Your task to perform on an android device: install app "ColorNote Notepad Notes" Image 0: 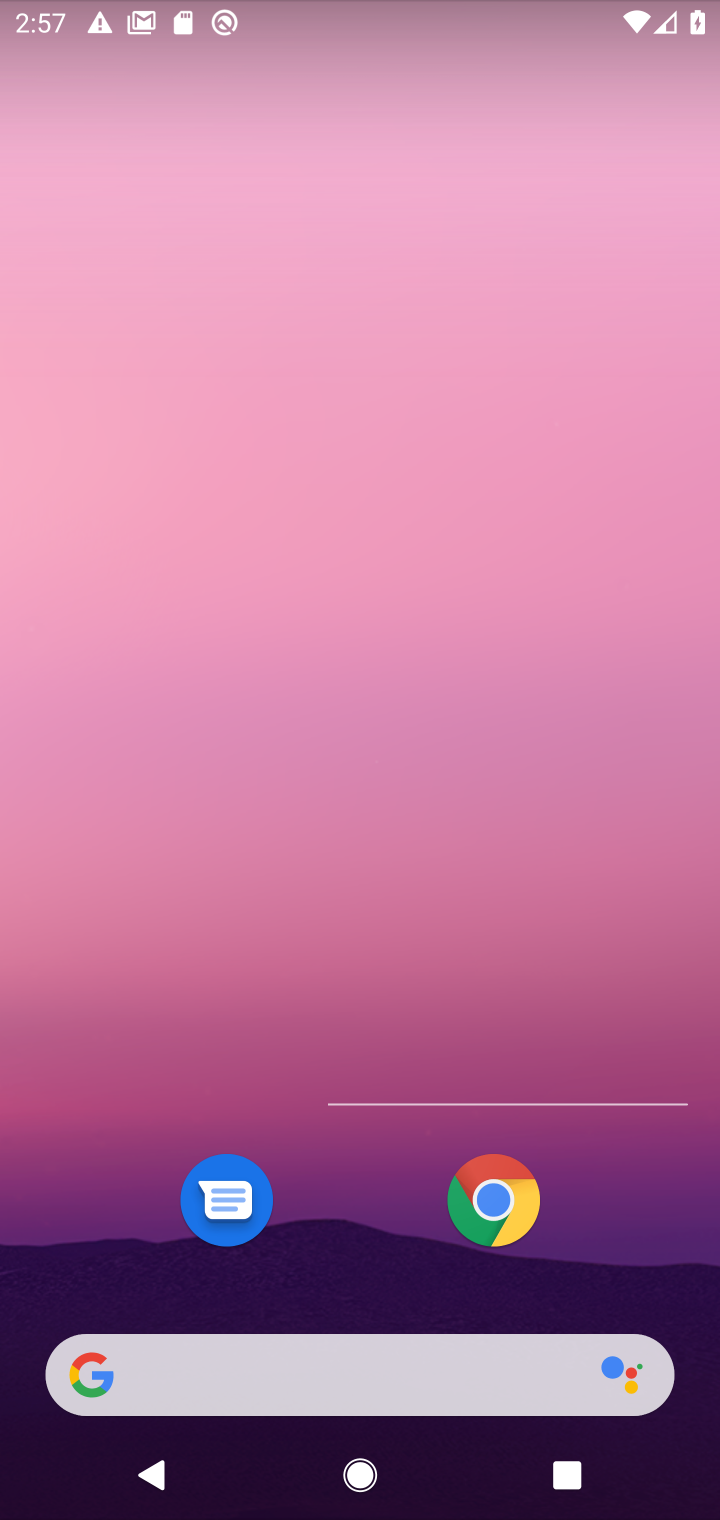
Step 0: drag from (369, 1280) to (443, 79)
Your task to perform on an android device: install app "ColorNote Notepad Notes" Image 1: 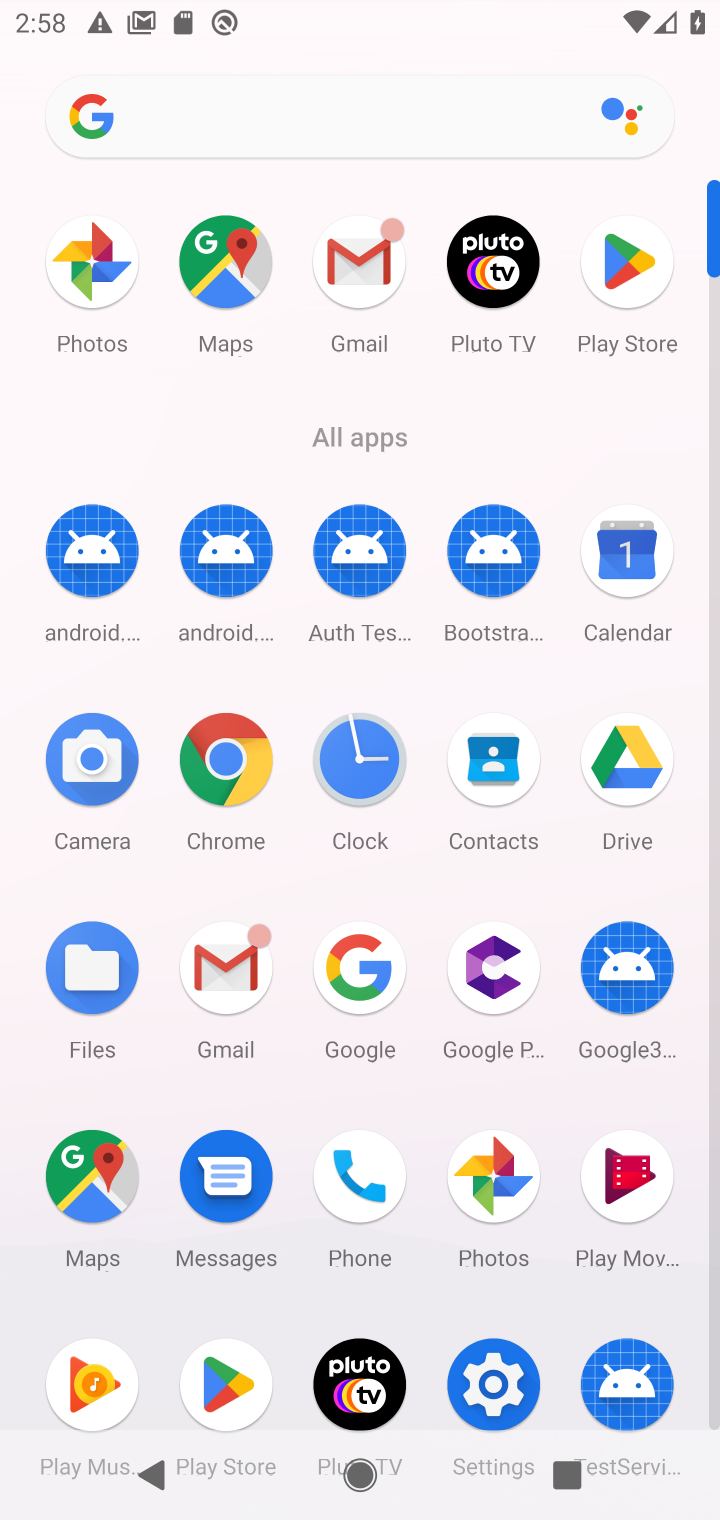
Step 1: click (224, 1396)
Your task to perform on an android device: install app "ColorNote Notepad Notes" Image 2: 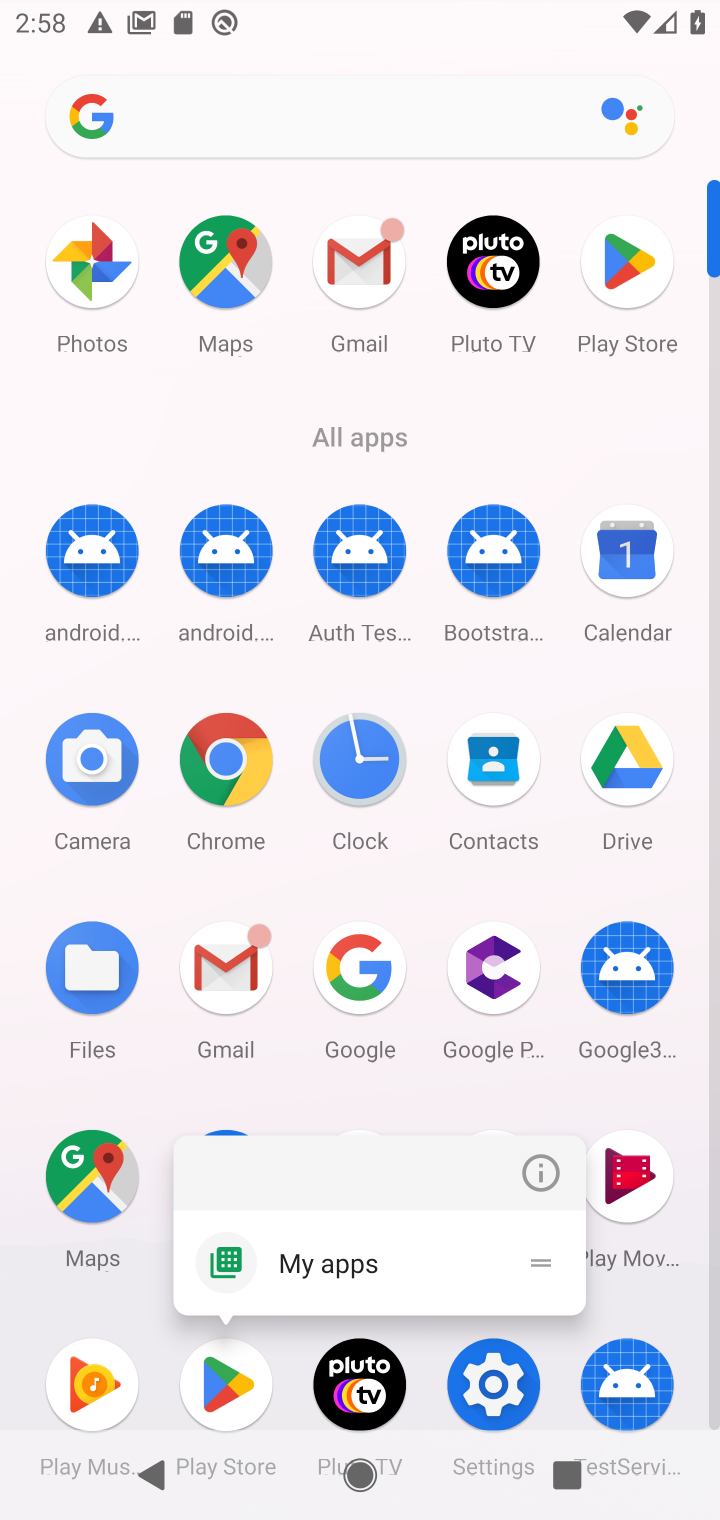
Step 2: click (231, 1376)
Your task to perform on an android device: install app "ColorNote Notepad Notes" Image 3: 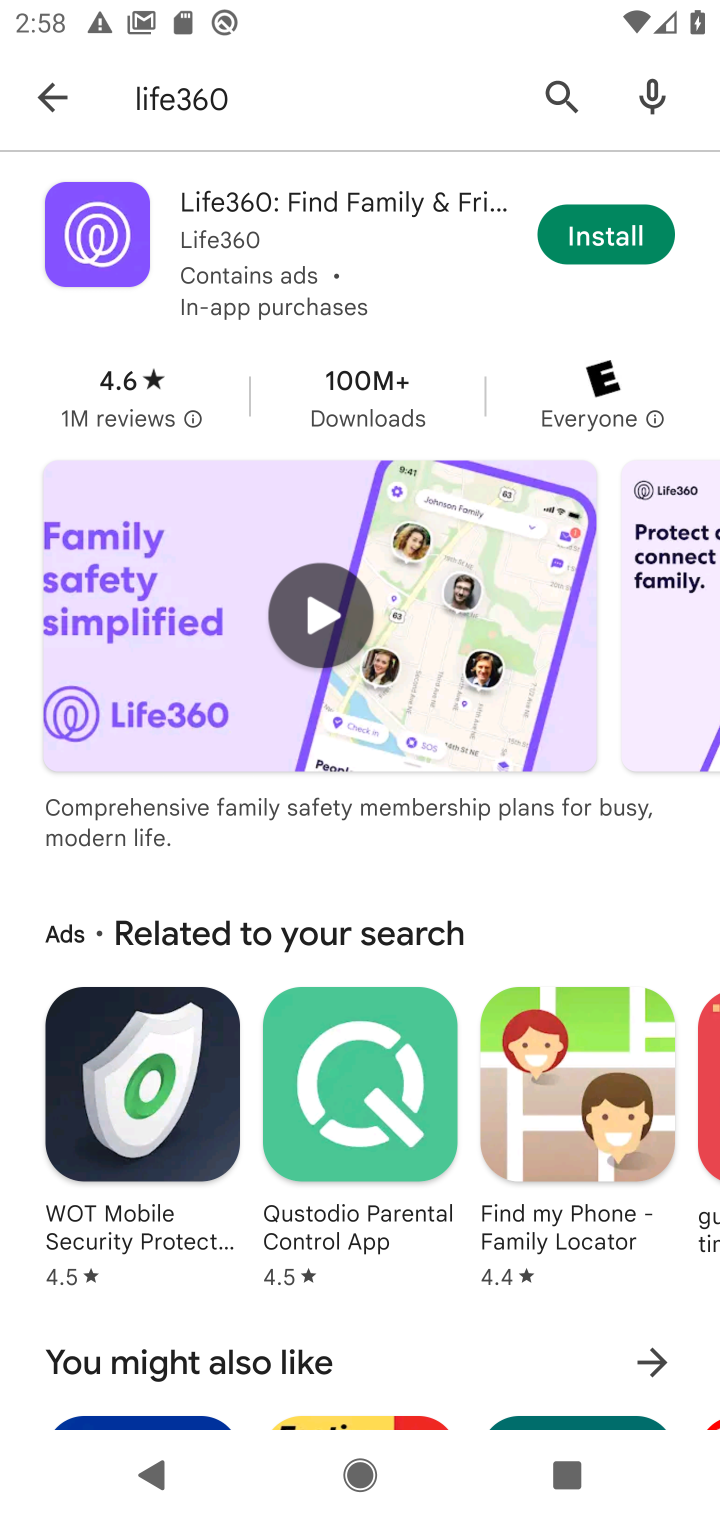
Step 3: click (184, 110)
Your task to perform on an android device: install app "ColorNote Notepad Notes" Image 4: 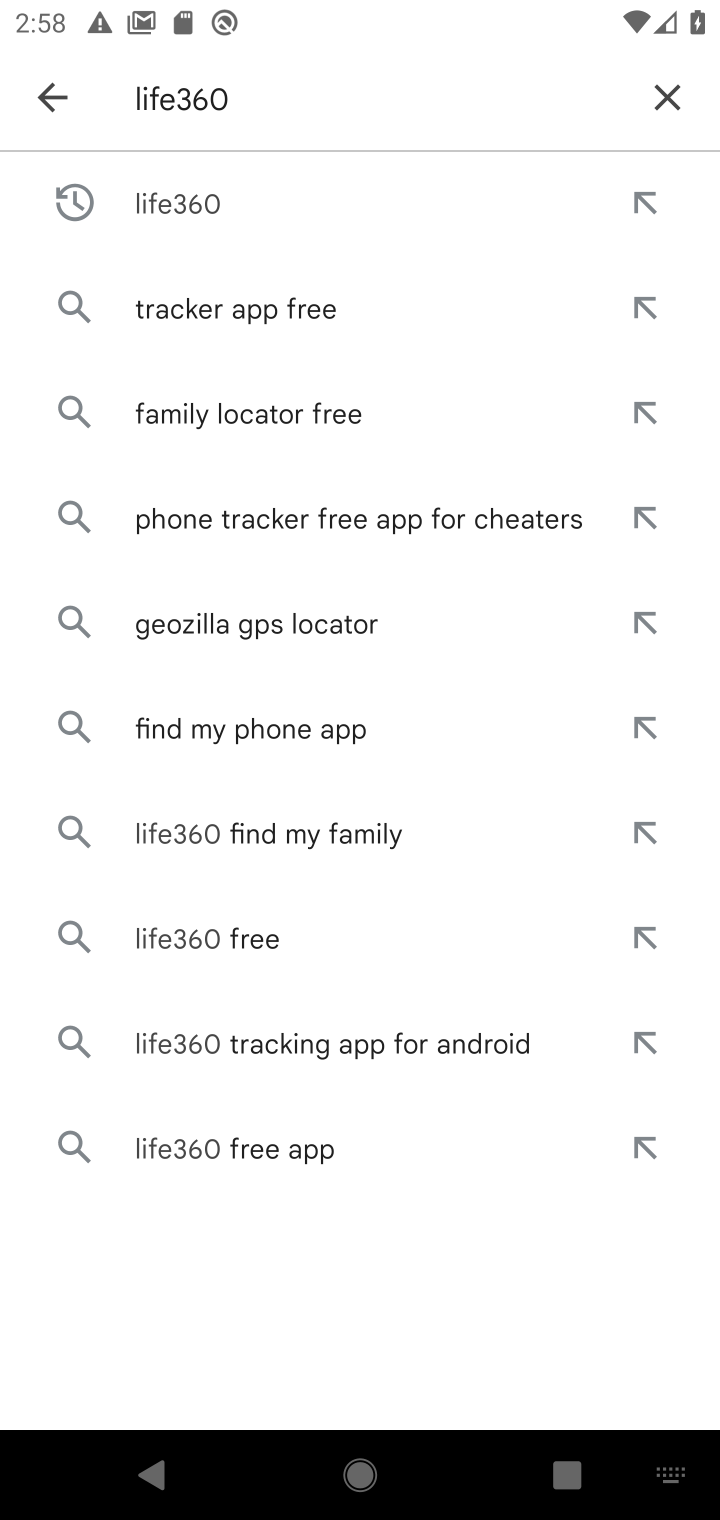
Step 4: click (665, 92)
Your task to perform on an android device: install app "ColorNote Notepad Notes" Image 5: 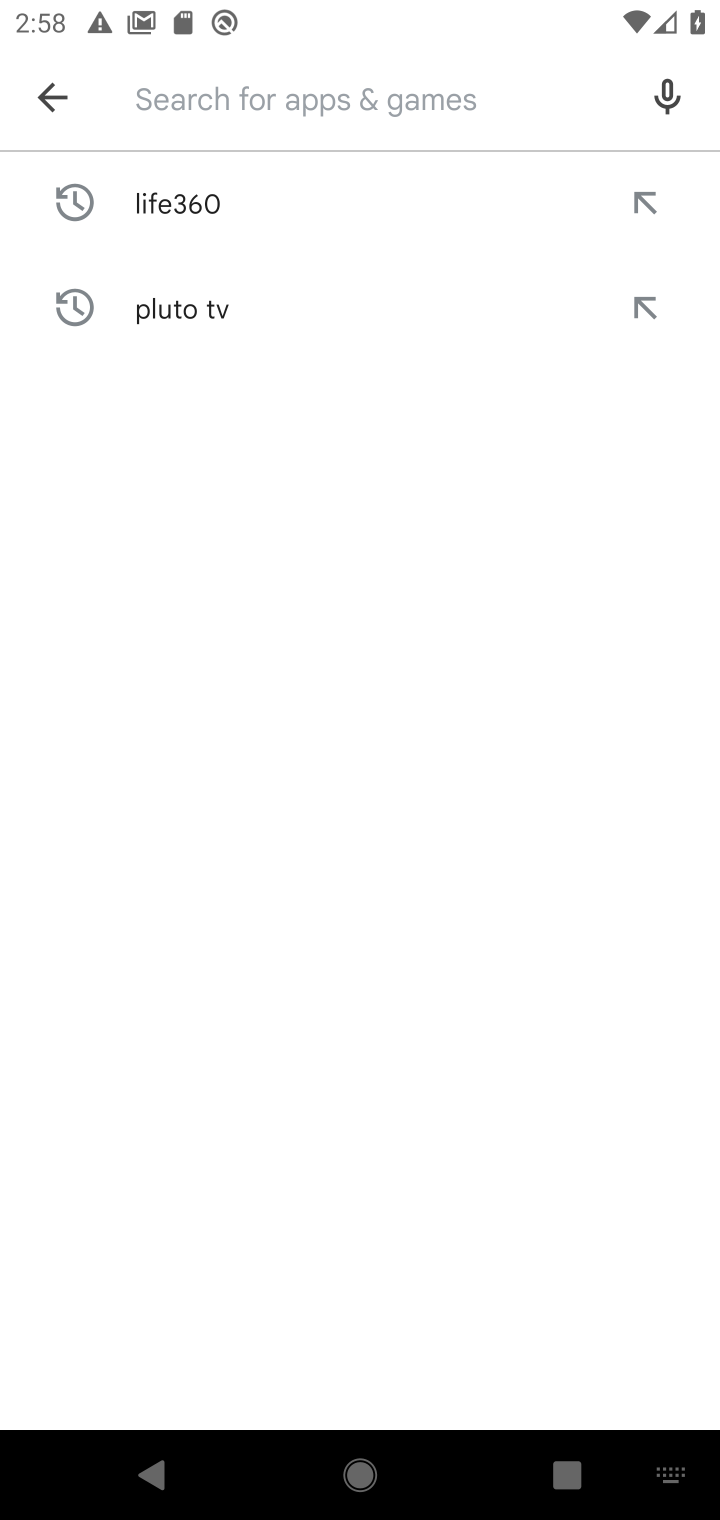
Step 5: type "ColoNote Notepad Notes"
Your task to perform on an android device: install app "ColorNote Notepad Notes" Image 6: 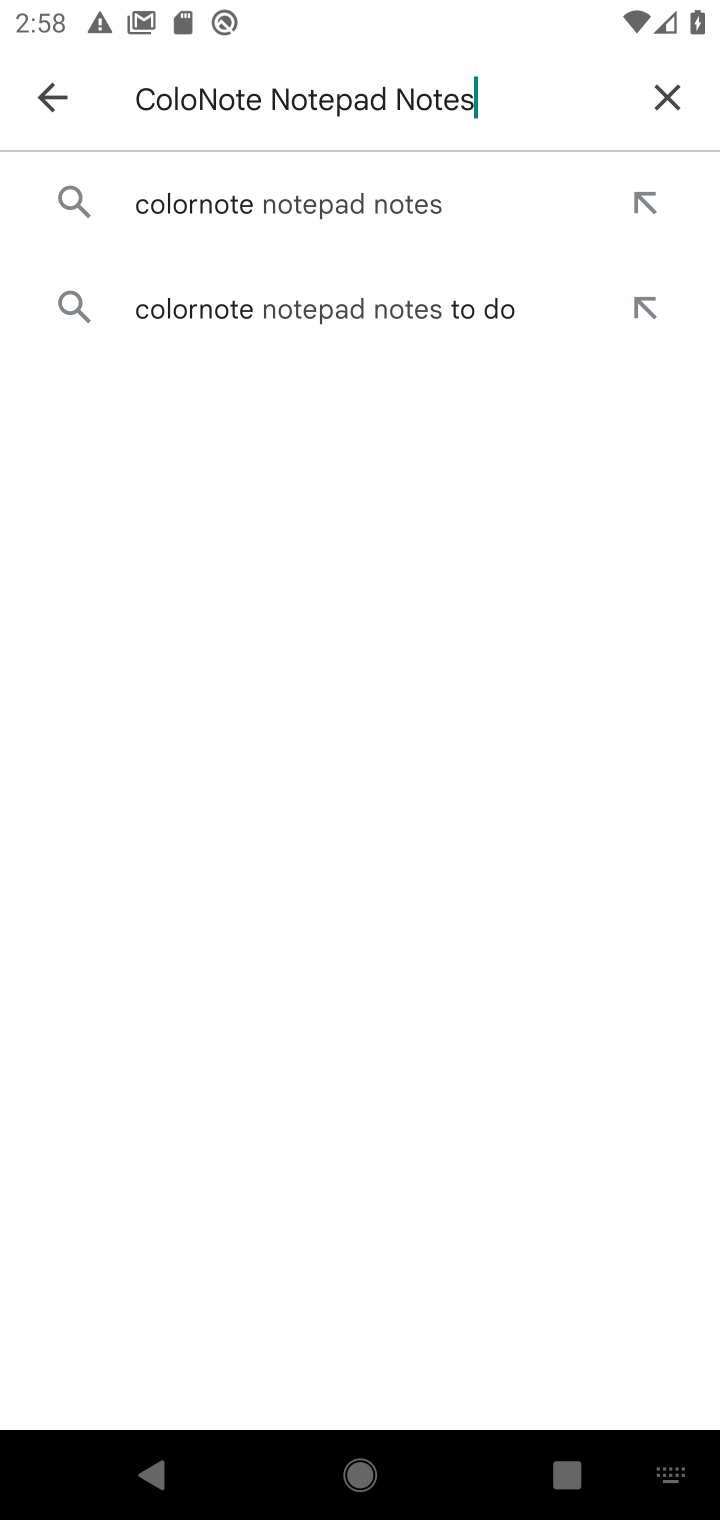
Step 6: click (273, 196)
Your task to perform on an android device: install app "ColorNote Notepad Notes" Image 7: 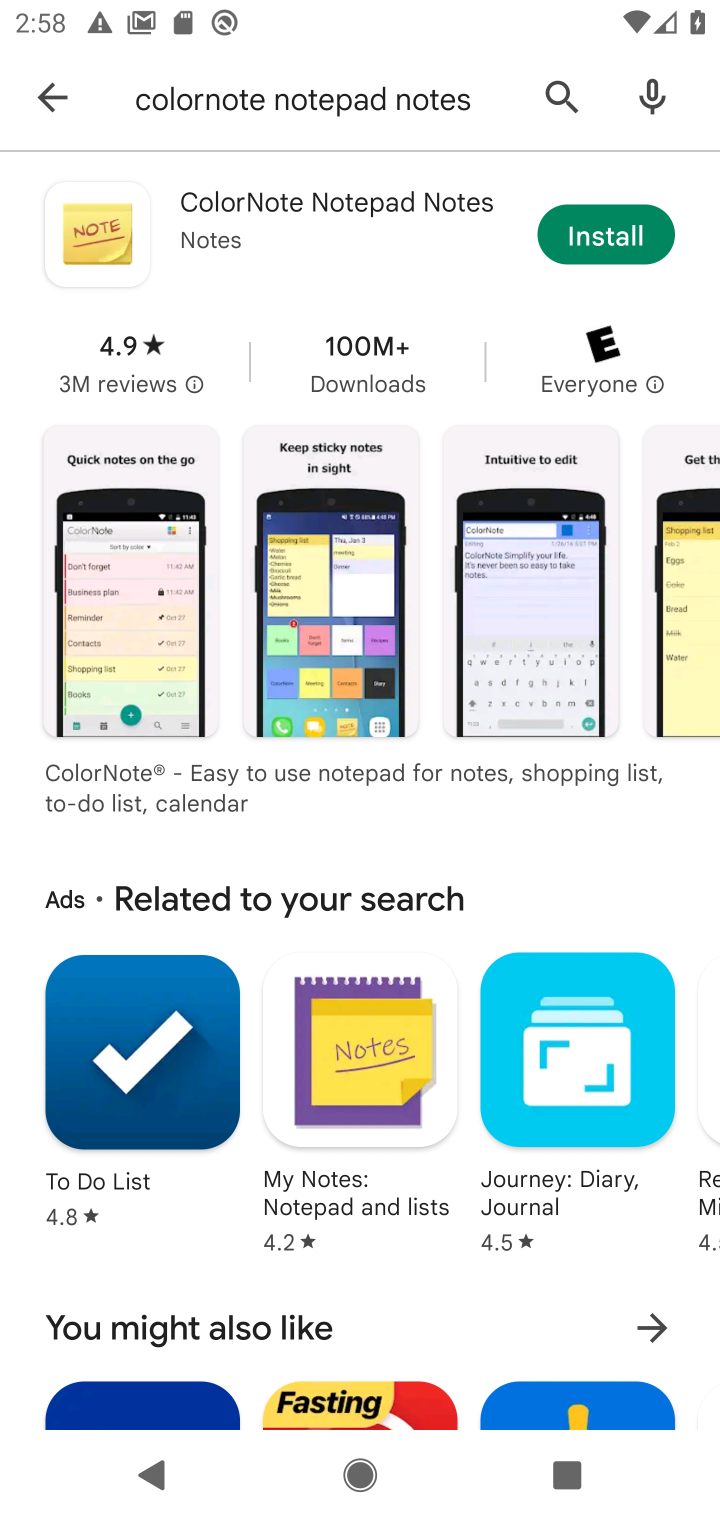
Step 7: click (600, 237)
Your task to perform on an android device: install app "ColorNote Notepad Notes" Image 8: 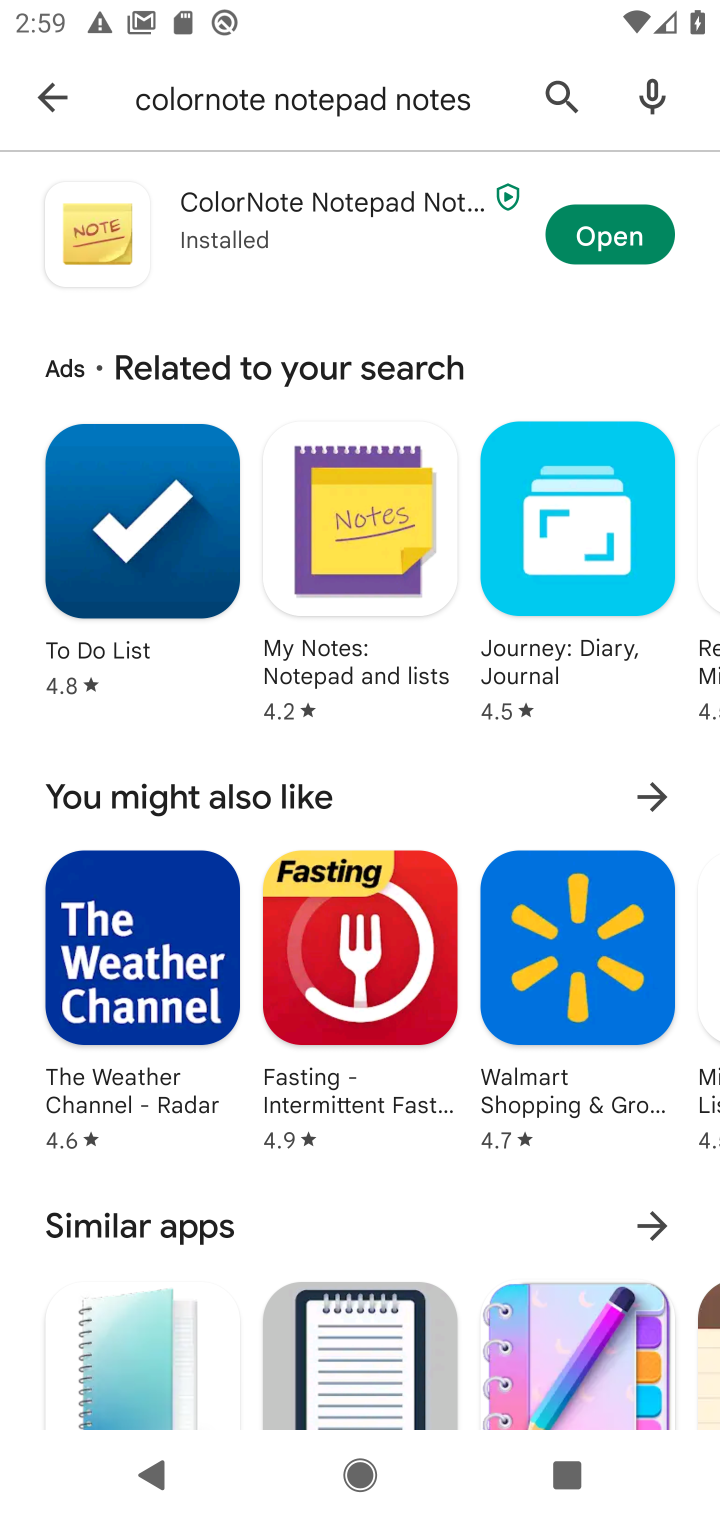
Step 8: task complete